Your task to perform on an android device: Open calendar and show me the second week of next month Image 0: 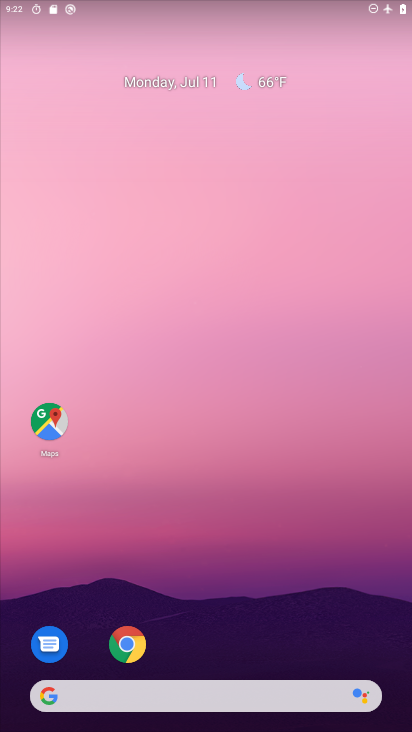
Step 0: drag from (318, 615) to (269, 96)
Your task to perform on an android device: Open calendar and show me the second week of next month Image 1: 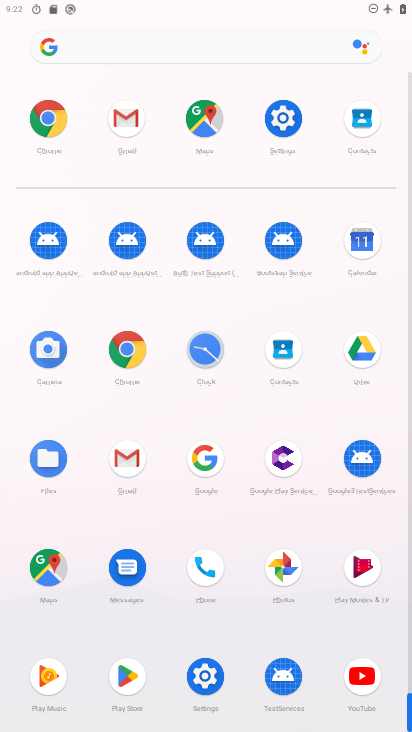
Step 1: click (375, 242)
Your task to perform on an android device: Open calendar and show me the second week of next month Image 2: 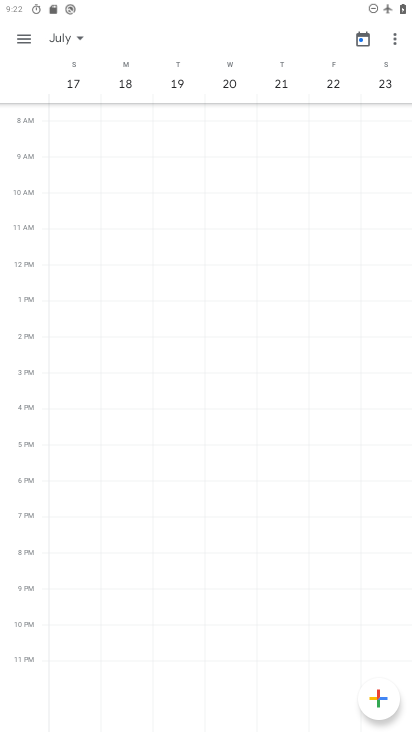
Step 2: click (66, 36)
Your task to perform on an android device: Open calendar and show me the second week of next month Image 3: 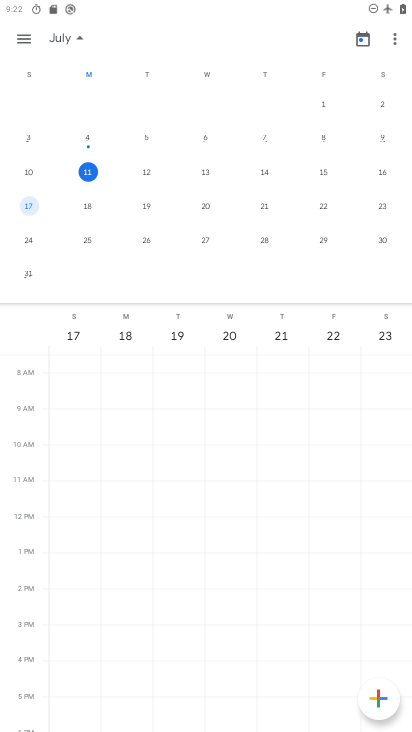
Step 3: drag from (384, 192) to (35, 177)
Your task to perform on an android device: Open calendar and show me the second week of next month Image 4: 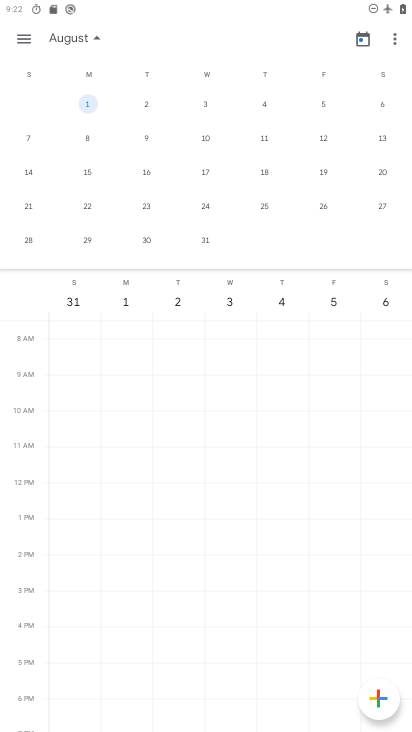
Step 4: click (148, 135)
Your task to perform on an android device: Open calendar and show me the second week of next month Image 5: 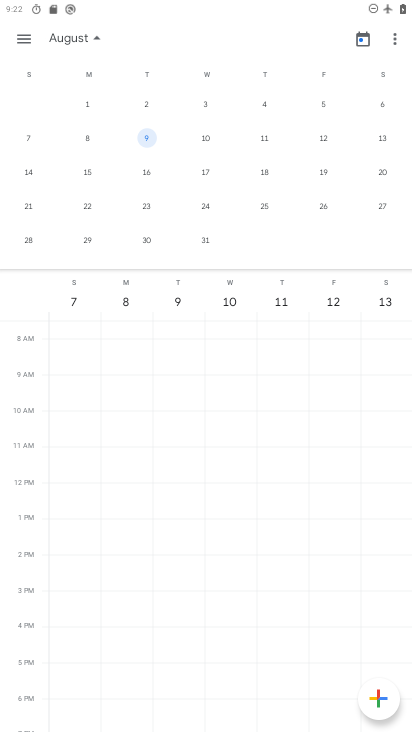
Step 5: click (28, 42)
Your task to perform on an android device: Open calendar and show me the second week of next month Image 6: 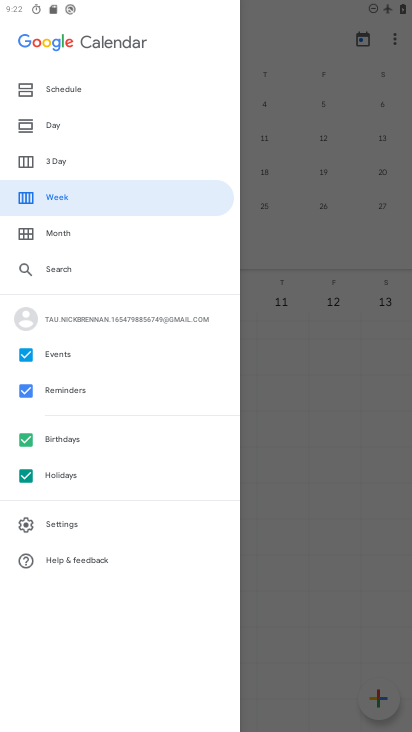
Step 6: click (54, 196)
Your task to perform on an android device: Open calendar and show me the second week of next month Image 7: 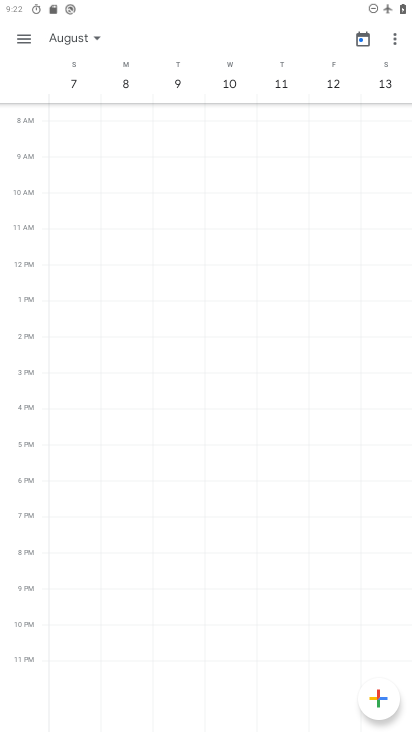
Step 7: task complete